Your task to perform on an android device: uninstall "Instagram" Image 0: 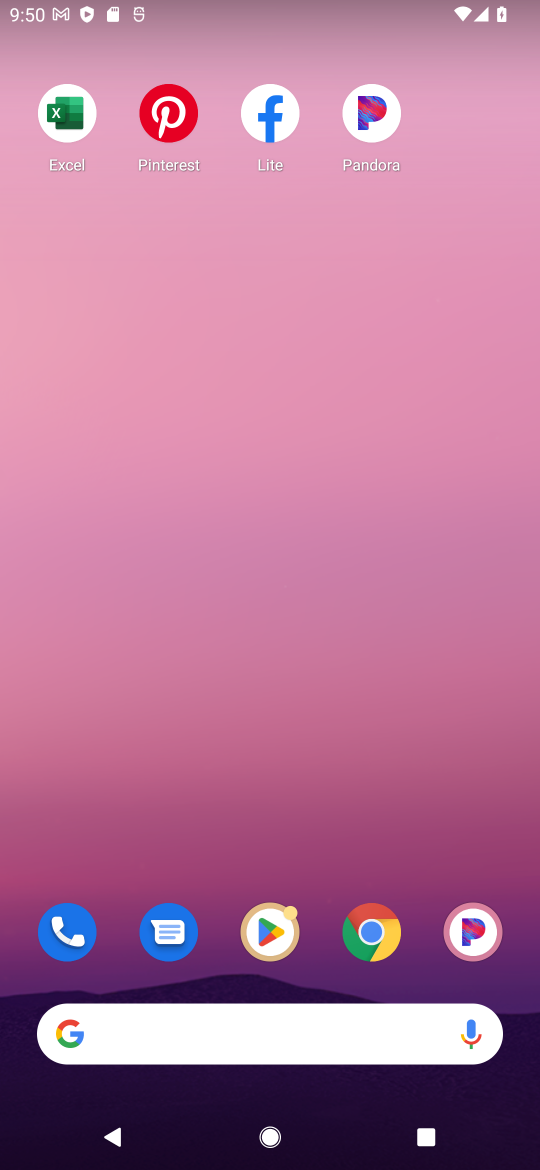
Step 0: click (270, 937)
Your task to perform on an android device: uninstall "Instagram" Image 1: 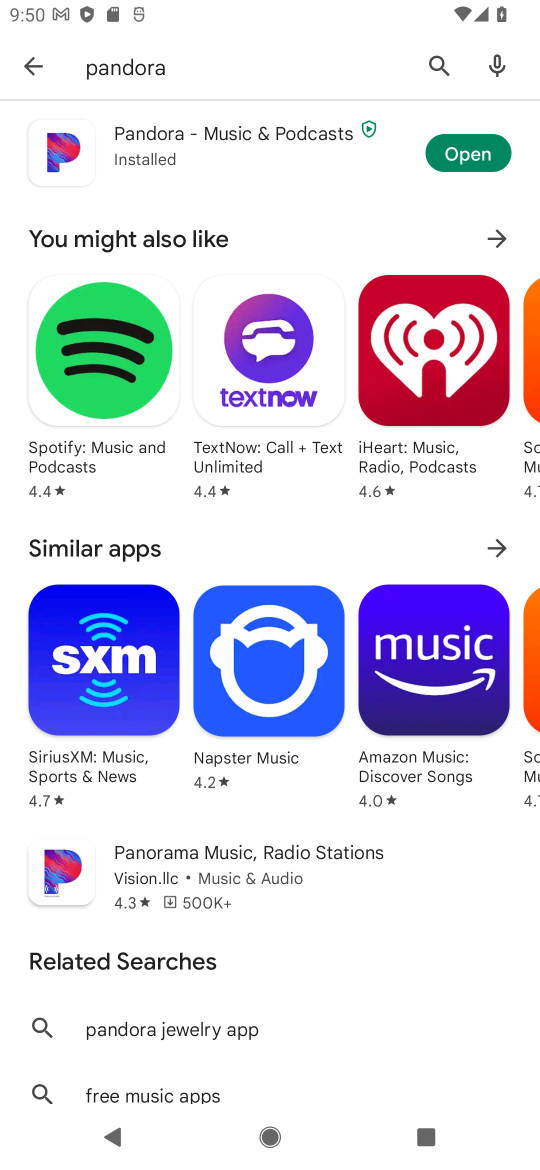
Step 1: click (430, 53)
Your task to perform on an android device: uninstall "Instagram" Image 2: 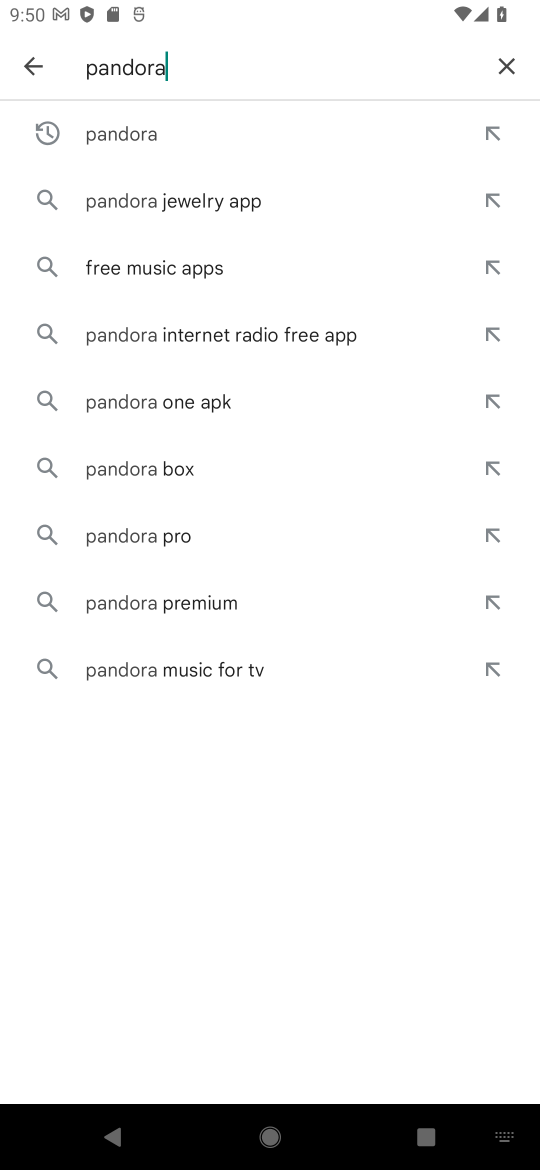
Step 2: click (509, 64)
Your task to perform on an android device: uninstall "Instagram" Image 3: 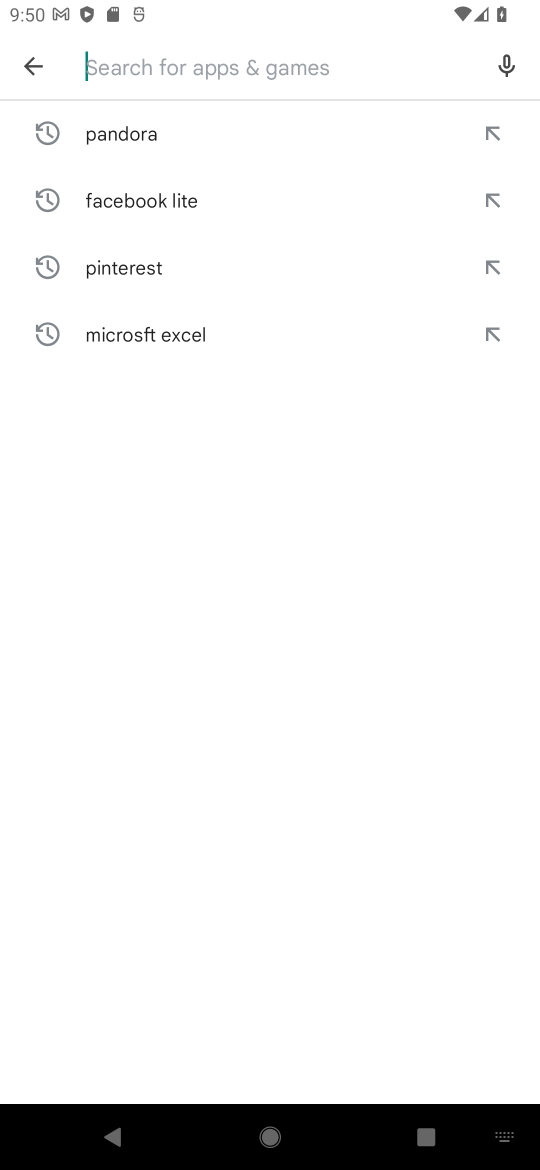
Step 3: type "instagram"
Your task to perform on an android device: uninstall "Instagram" Image 4: 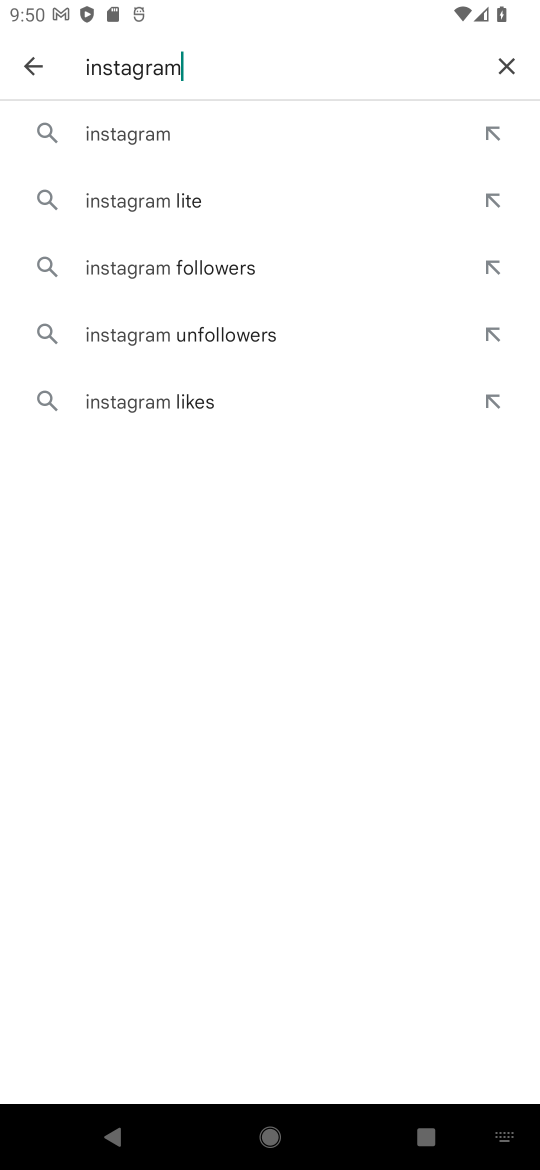
Step 4: click (114, 155)
Your task to perform on an android device: uninstall "Instagram" Image 5: 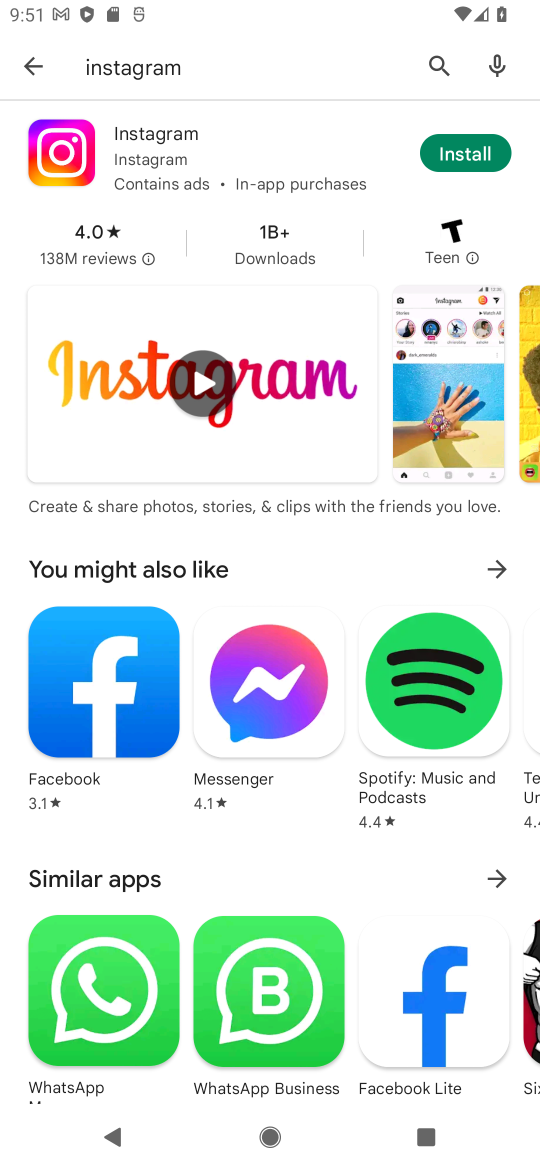
Step 5: task complete